Your task to perform on an android device: Open Google Chrome and open the bookmarks view Image 0: 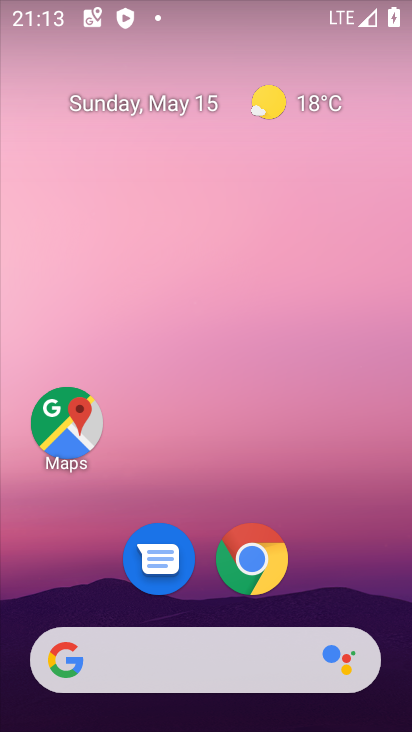
Step 0: click (254, 566)
Your task to perform on an android device: Open Google Chrome and open the bookmarks view Image 1: 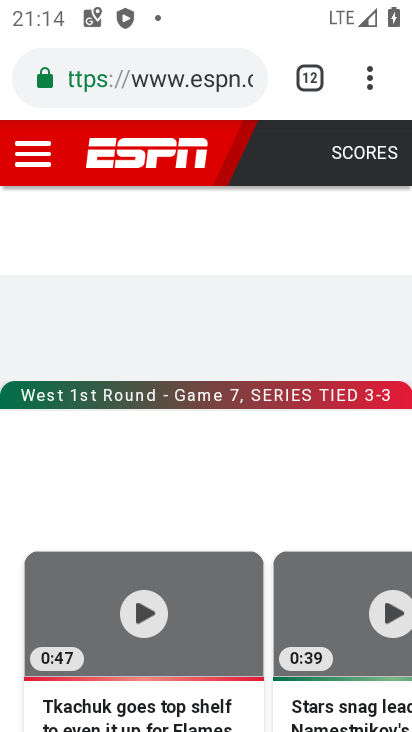
Step 1: click (366, 81)
Your task to perform on an android device: Open Google Chrome and open the bookmarks view Image 2: 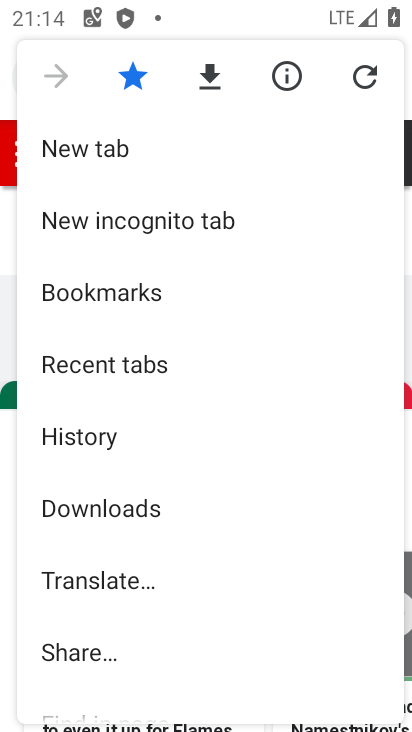
Step 2: click (121, 290)
Your task to perform on an android device: Open Google Chrome and open the bookmarks view Image 3: 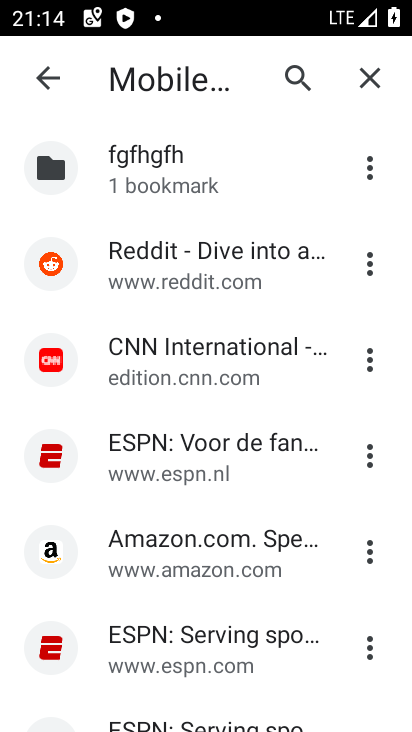
Step 3: click (377, 165)
Your task to perform on an android device: Open Google Chrome and open the bookmarks view Image 4: 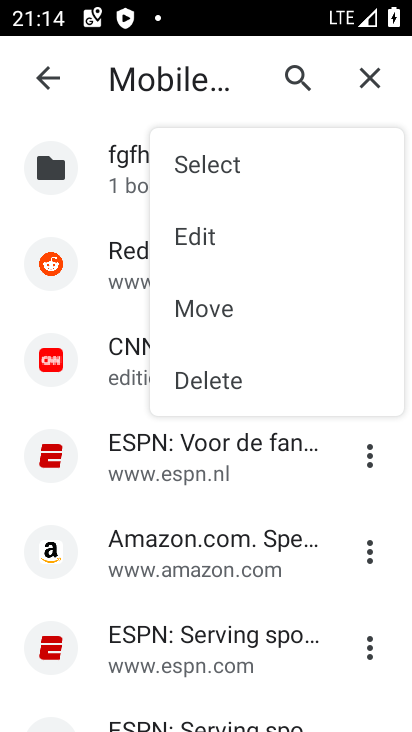
Step 4: click (225, 254)
Your task to perform on an android device: Open Google Chrome and open the bookmarks view Image 5: 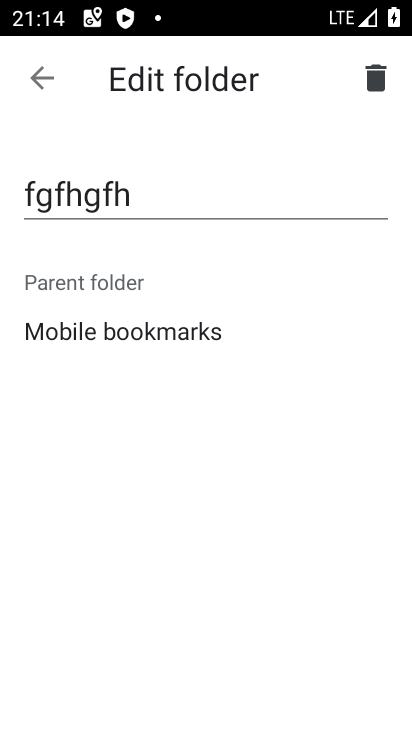
Step 5: task complete